Your task to perform on an android device: Open ESPN.com Image 0: 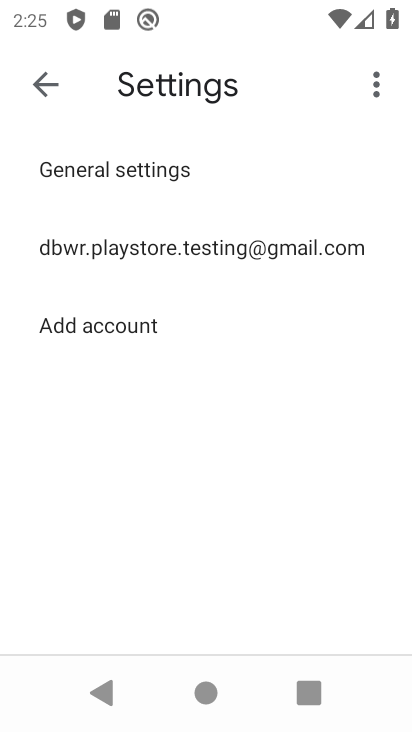
Step 0: press home button
Your task to perform on an android device: Open ESPN.com Image 1: 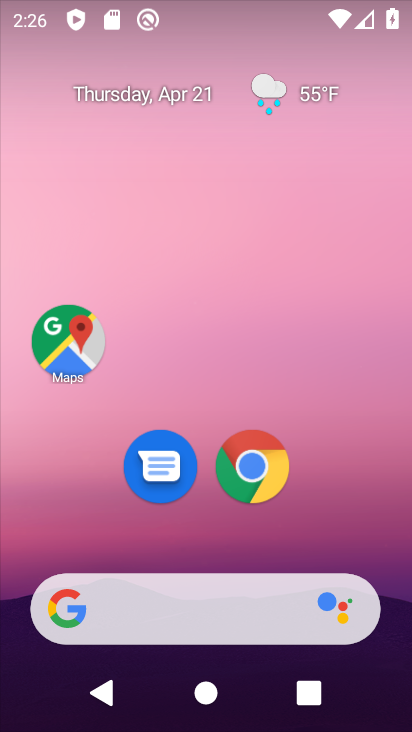
Step 1: click (245, 483)
Your task to perform on an android device: Open ESPN.com Image 2: 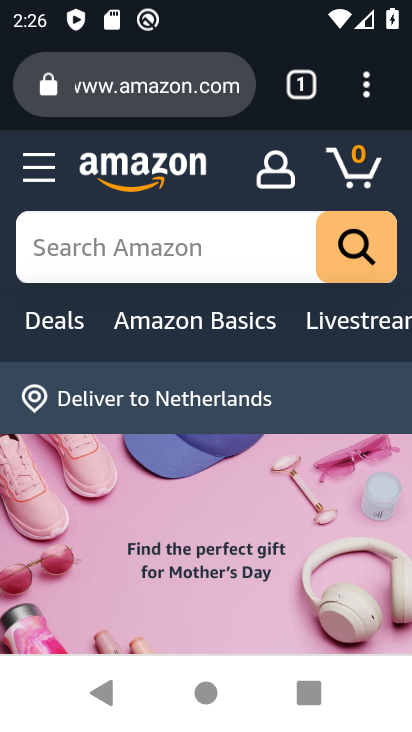
Step 2: click (185, 90)
Your task to perform on an android device: Open ESPN.com Image 3: 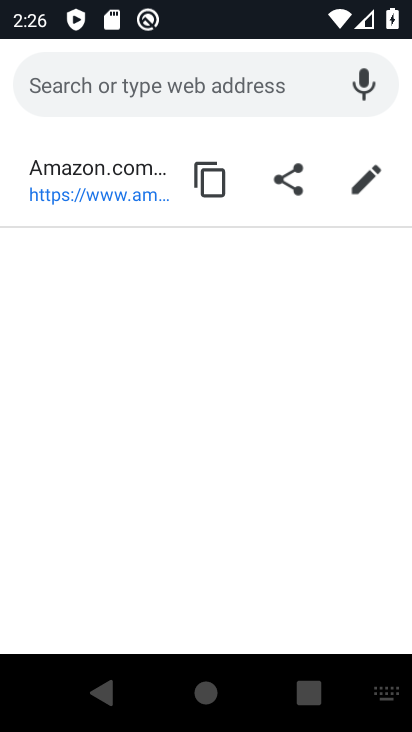
Step 3: type "espn.com"
Your task to perform on an android device: Open ESPN.com Image 4: 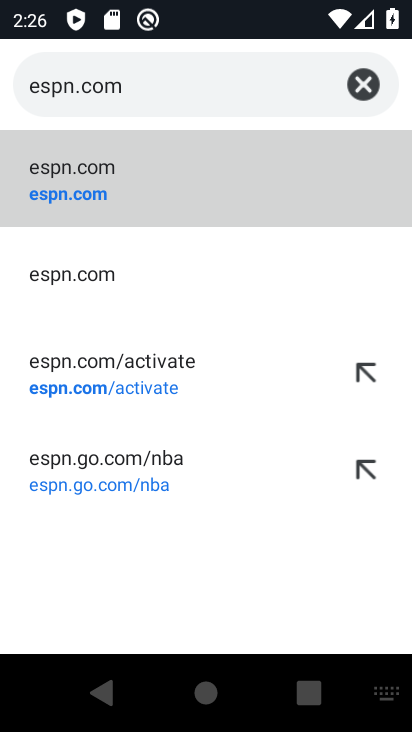
Step 4: click (78, 154)
Your task to perform on an android device: Open ESPN.com Image 5: 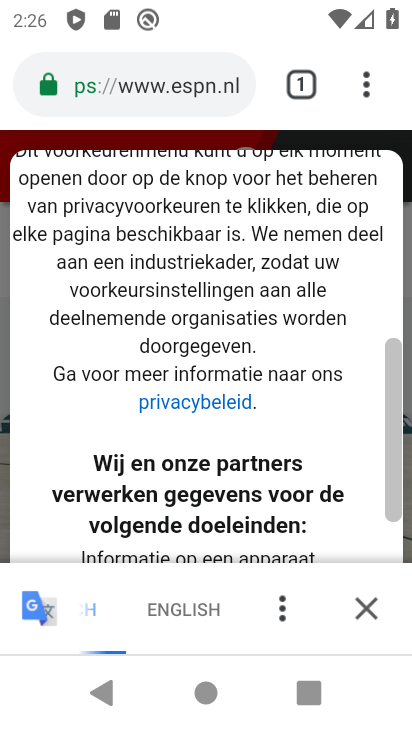
Step 5: task complete